Your task to perform on an android device: clear all cookies in the chrome app Image 0: 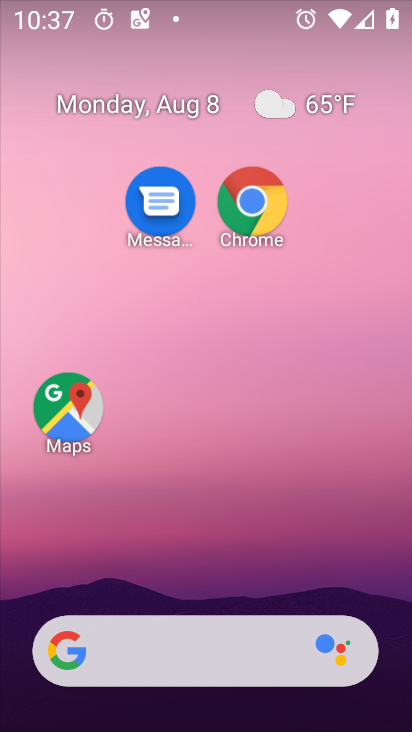
Step 0: press home button
Your task to perform on an android device: clear all cookies in the chrome app Image 1: 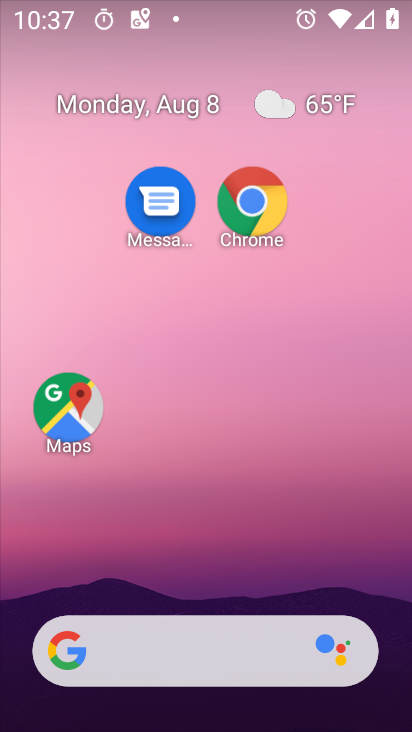
Step 1: drag from (238, 584) to (274, 44)
Your task to perform on an android device: clear all cookies in the chrome app Image 2: 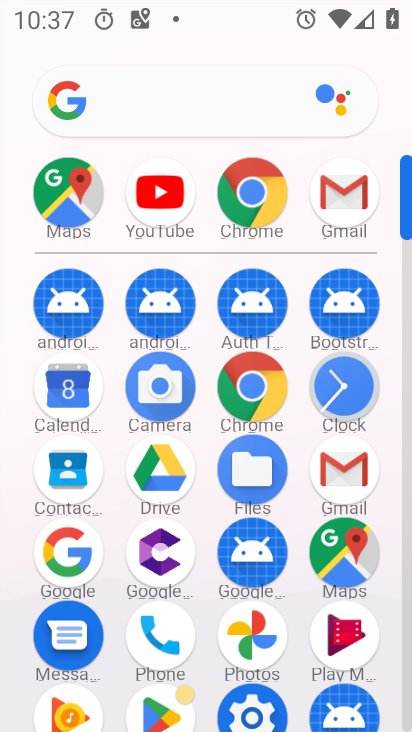
Step 2: click (247, 379)
Your task to perform on an android device: clear all cookies in the chrome app Image 3: 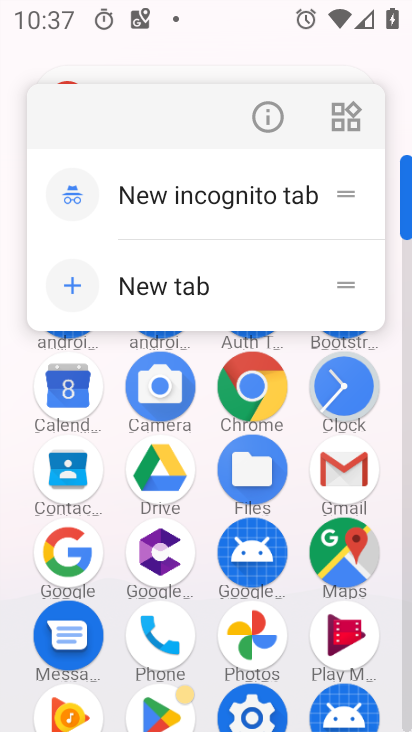
Step 3: click (247, 379)
Your task to perform on an android device: clear all cookies in the chrome app Image 4: 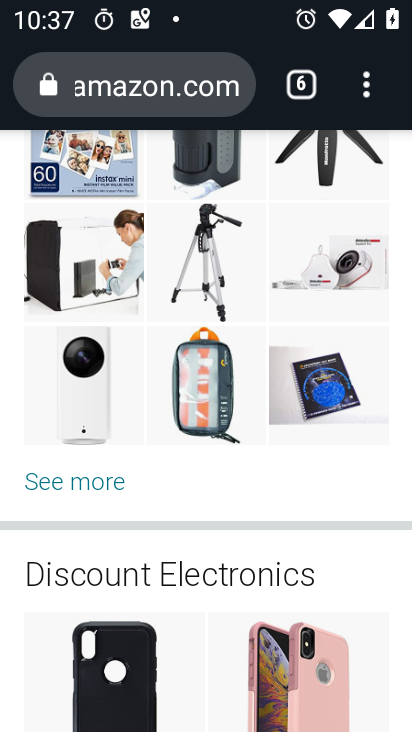
Step 4: click (367, 81)
Your task to perform on an android device: clear all cookies in the chrome app Image 5: 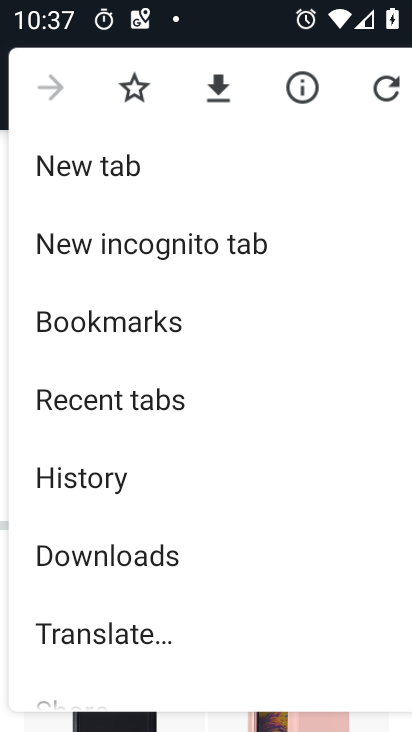
Step 5: click (133, 471)
Your task to perform on an android device: clear all cookies in the chrome app Image 6: 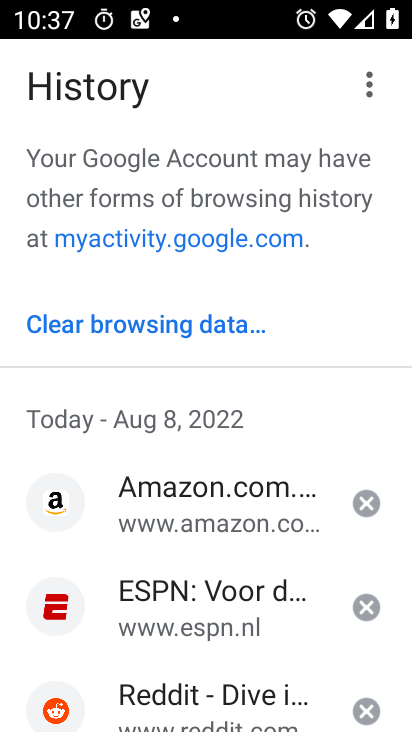
Step 6: click (145, 321)
Your task to perform on an android device: clear all cookies in the chrome app Image 7: 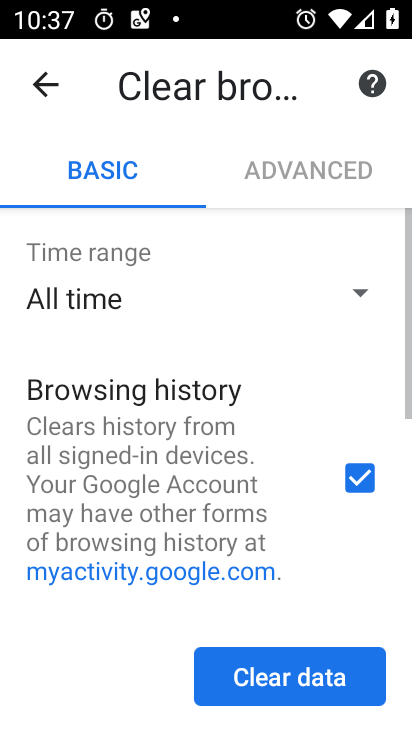
Step 7: drag from (246, 530) to (258, 191)
Your task to perform on an android device: clear all cookies in the chrome app Image 8: 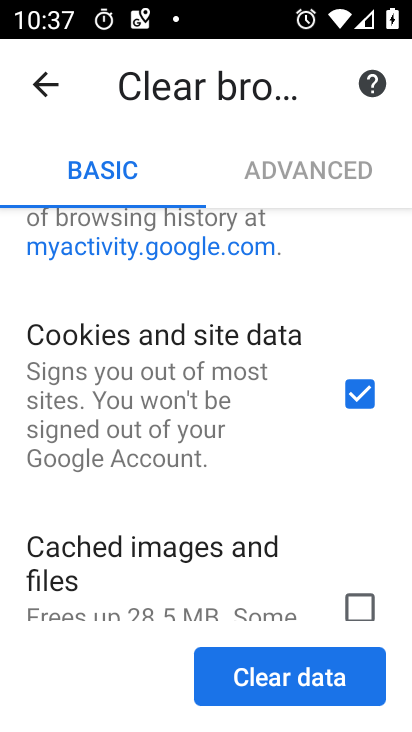
Step 8: click (358, 393)
Your task to perform on an android device: clear all cookies in the chrome app Image 9: 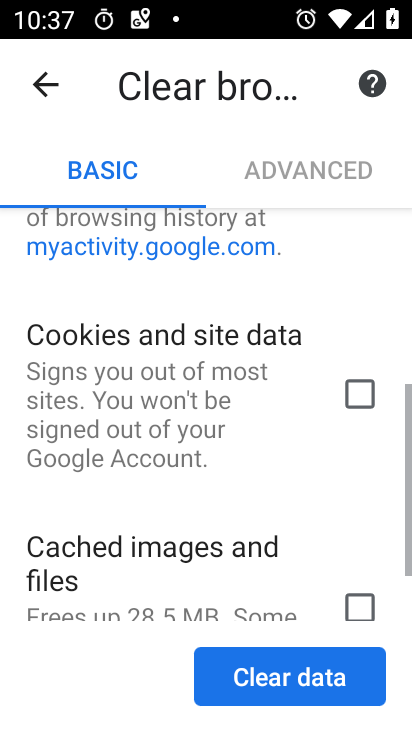
Step 9: click (362, 599)
Your task to perform on an android device: clear all cookies in the chrome app Image 10: 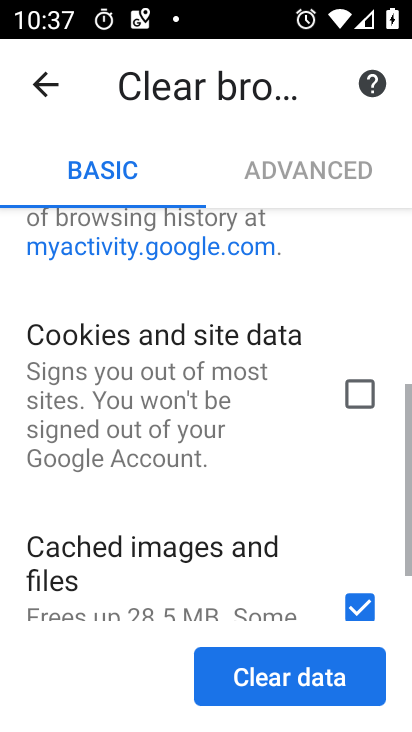
Step 10: drag from (277, 576) to (281, 161)
Your task to perform on an android device: clear all cookies in the chrome app Image 11: 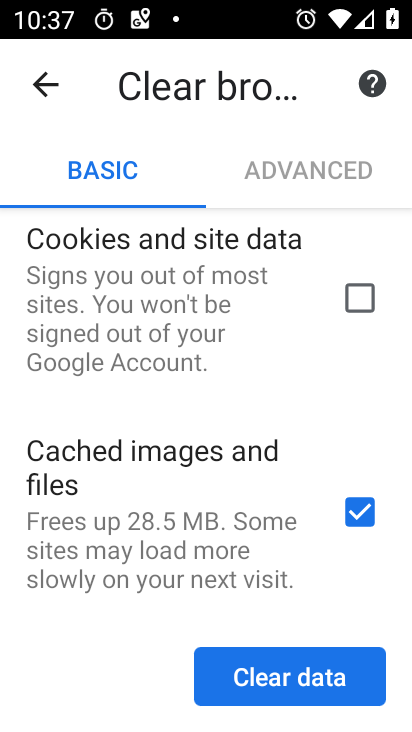
Step 11: drag from (233, 564) to (274, 161)
Your task to perform on an android device: clear all cookies in the chrome app Image 12: 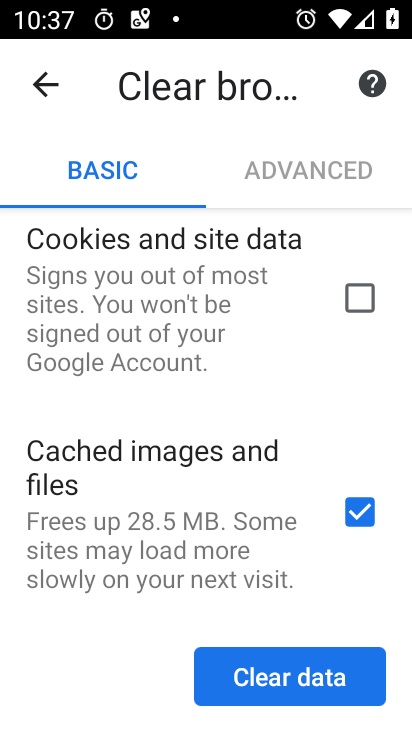
Step 12: click (295, 693)
Your task to perform on an android device: clear all cookies in the chrome app Image 13: 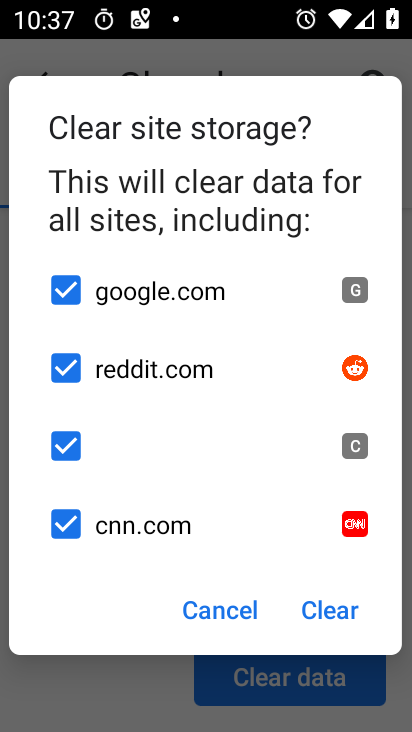
Step 13: click (327, 615)
Your task to perform on an android device: clear all cookies in the chrome app Image 14: 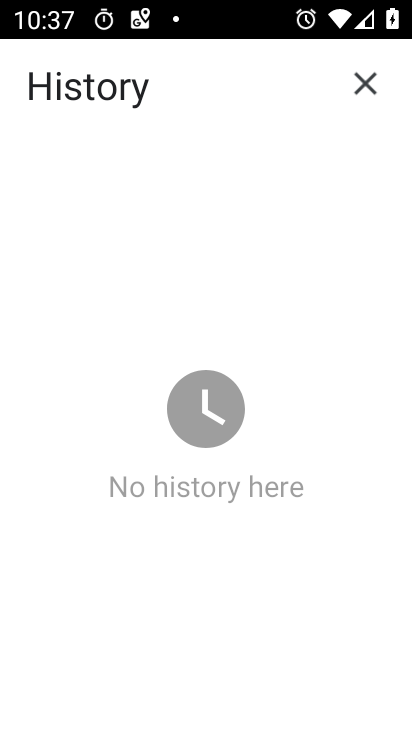
Step 14: task complete